Your task to perform on an android device: turn on improve location accuracy Image 0: 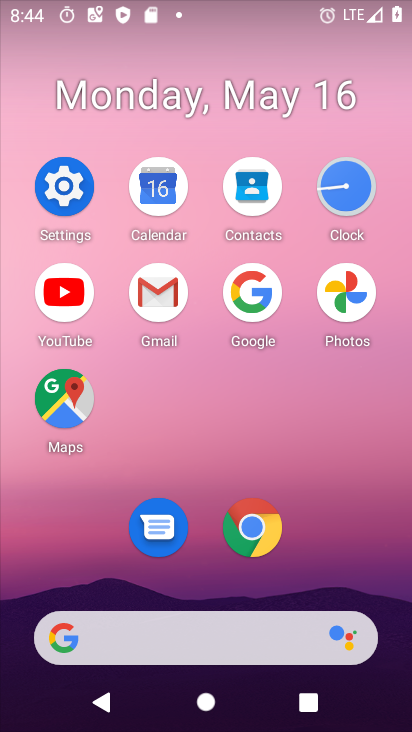
Step 0: click (60, 190)
Your task to perform on an android device: turn on improve location accuracy Image 1: 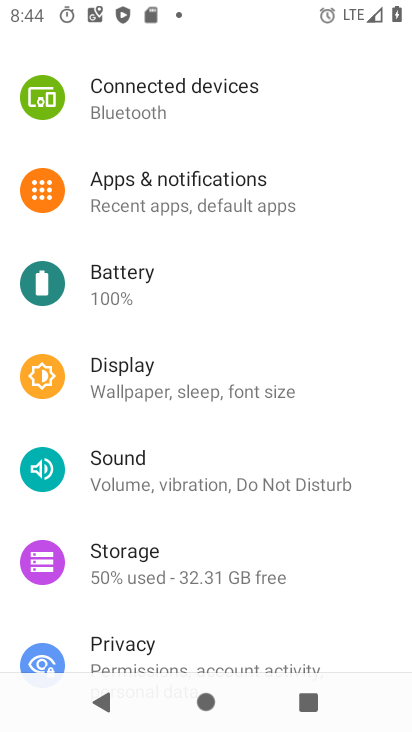
Step 1: drag from (296, 581) to (303, 159)
Your task to perform on an android device: turn on improve location accuracy Image 2: 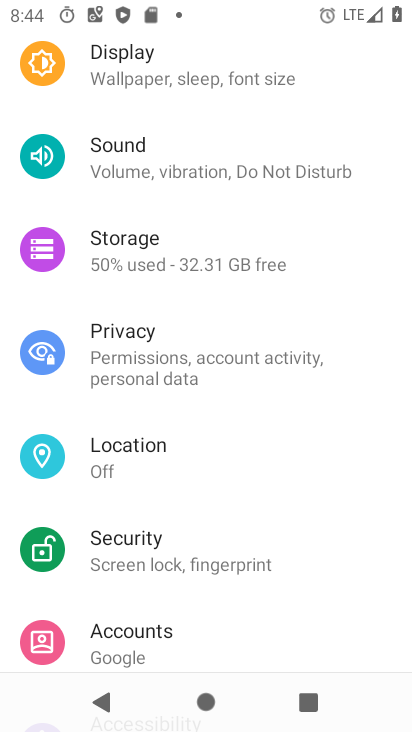
Step 2: click (257, 460)
Your task to perform on an android device: turn on improve location accuracy Image 3: 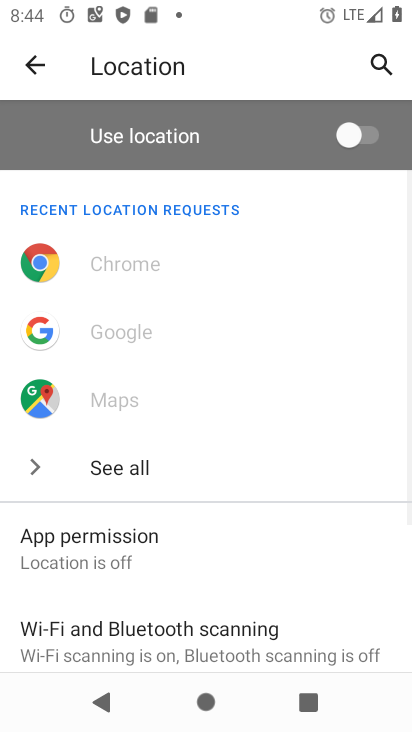
Step 3: drag from (165, 566) to (186, 169)
Your task to perform on an android device: turn on improve location accuracy Image 4: 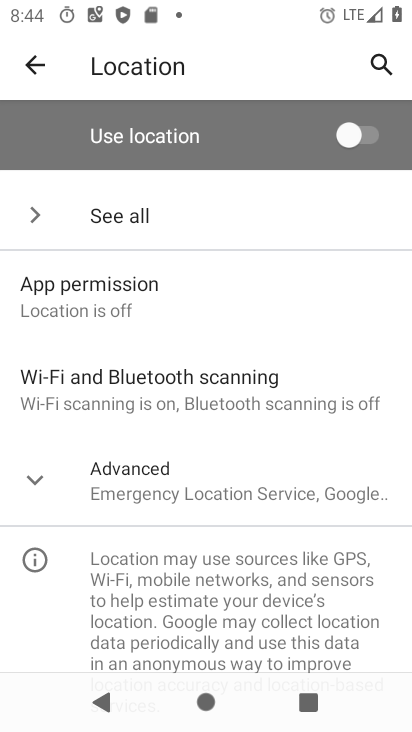
Step 4: click (190, 460)
Your task to perform on an android device: turn on improve location accuracy Image 5: 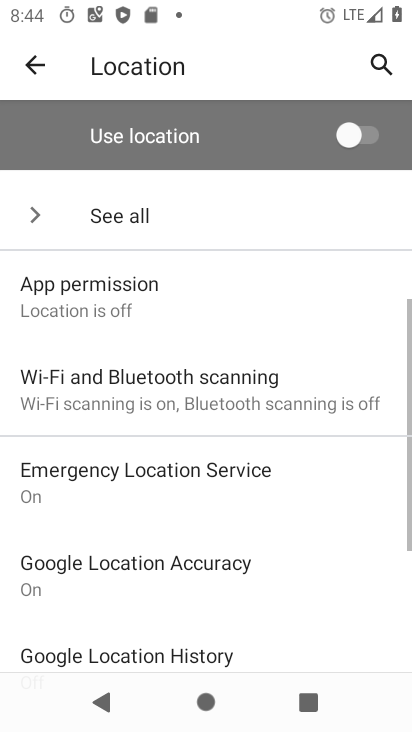
Step 5: drag from (187, 513) to (199, 190)
Your task to perform on an android device: turn on improve location accuracy Image 6: 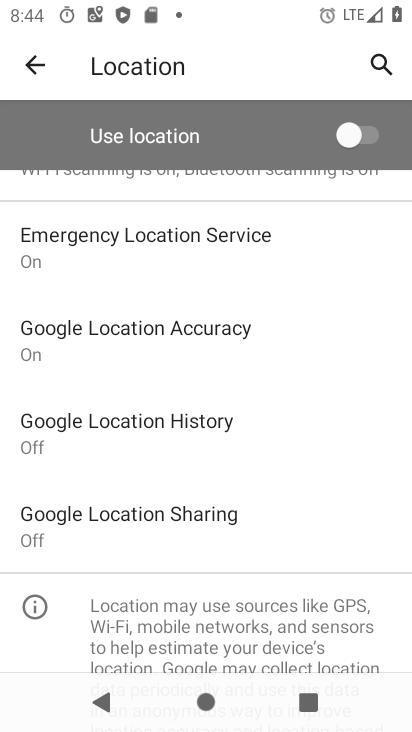
Step 6: click (225, 316)
Your task to perform on an android device: turn on improve location accuracy Image 7: 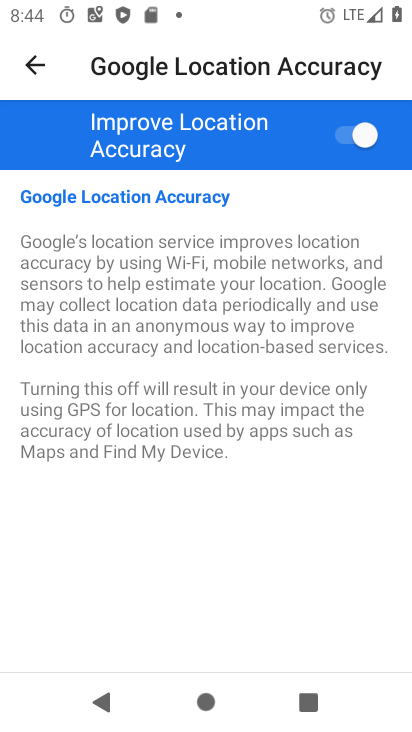
Step 7: task complete